Your task to perform on an android device: add a contact in the contacts app Image 0: 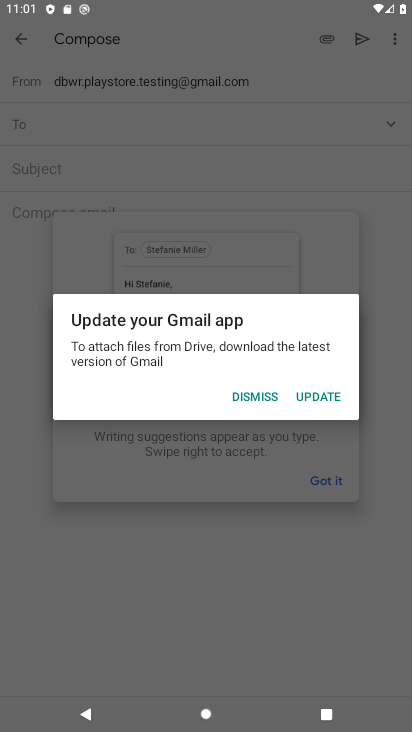
Step 0: press back button
Your task to perform on an android device: add a contact in the contacts app Image 1: 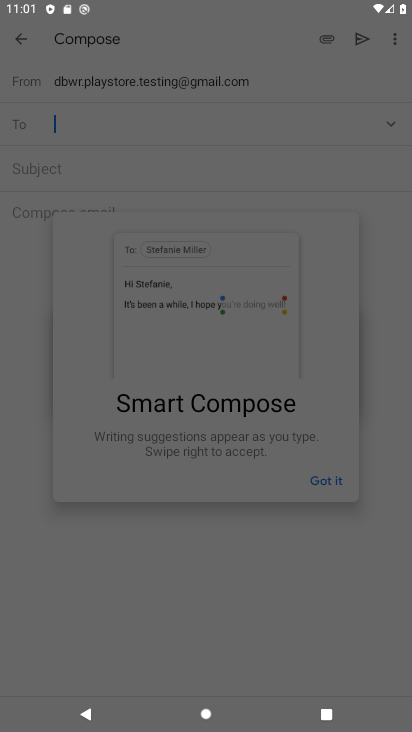
Step 1: press back button
Your task to perform on an android device: add a contact in the contacts app Image 2: 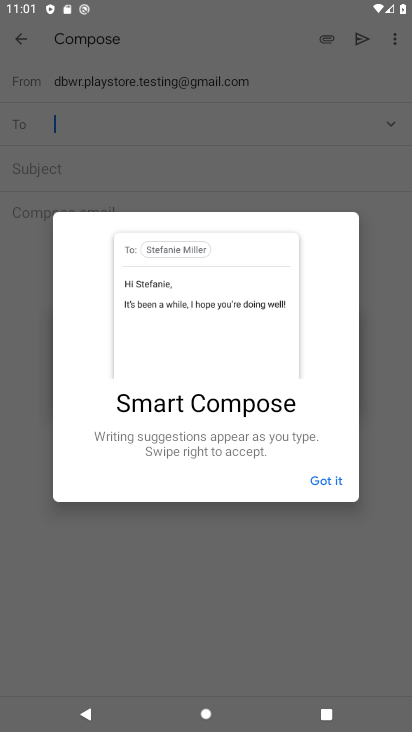
Step 2: press home button
Your task to perform on an android device: add a contact in the contacts app Image 3: 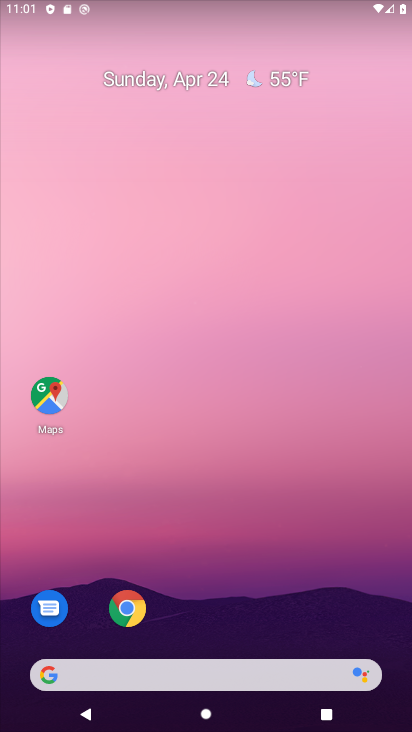
Step 3: drag from (185, 518) to (239, 108)
Your task to perform on an android device: add a contact in the contacts app Image 4: 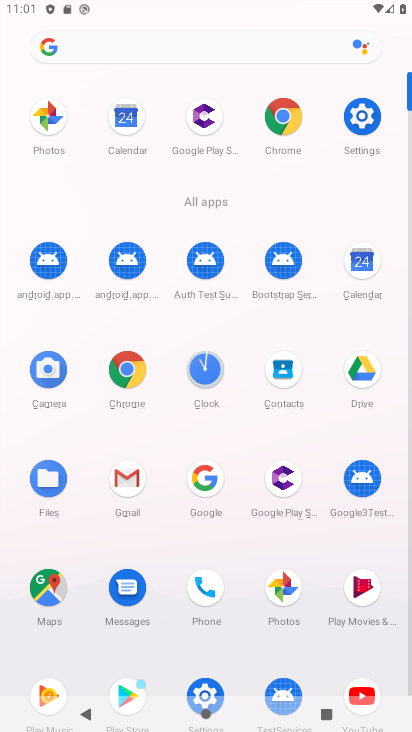
Step 4: click (281, 363)
Your task to perform on an android device: add a contact in the contacts app Image 5: 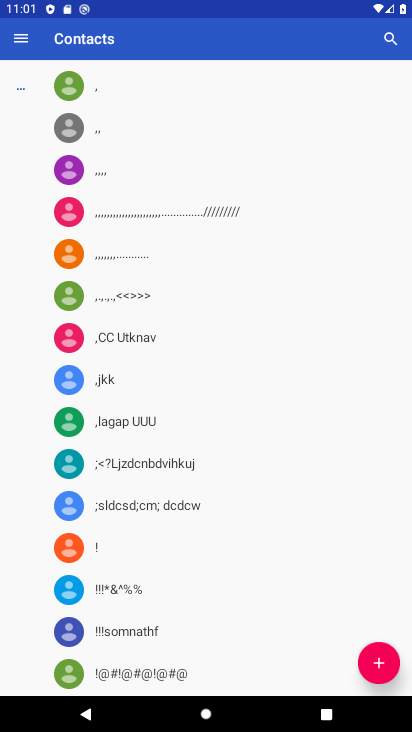
Step 5: click (376, 665)
Your task to perform on an android device: add a contact in the contacts app Image 6: 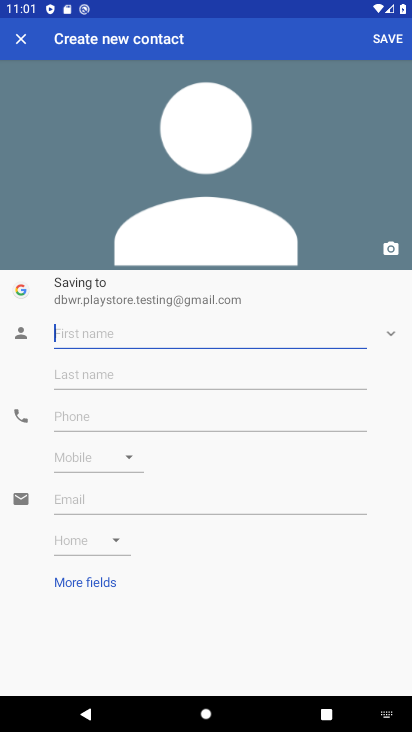
Step 6: click (89, 319)
Your task to perform on an android device: add a contact in the contacts app Image 7: 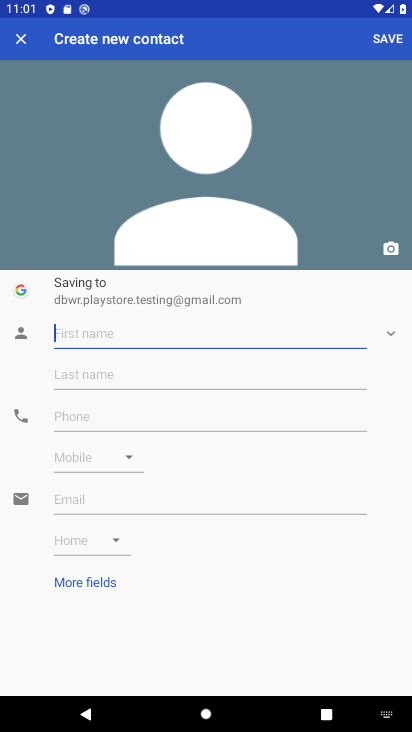
Step 7: type "hghg"
Your task to perform on an android device: add a contact in the contacts app Image 8: 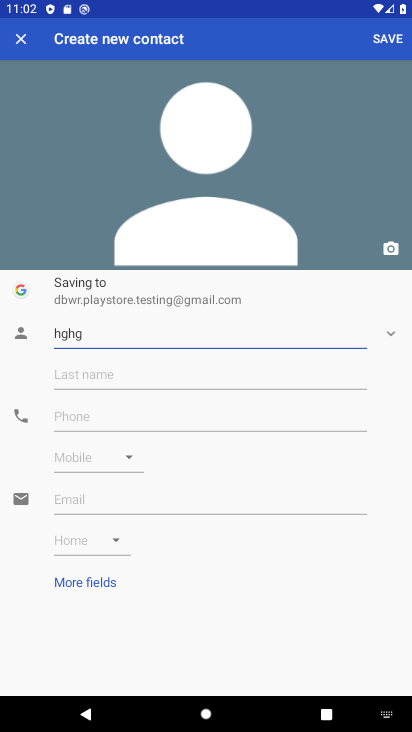
Step 8: click (94, 411)
Your task to perform on an android device: add a contact in the contacts app Image 9: 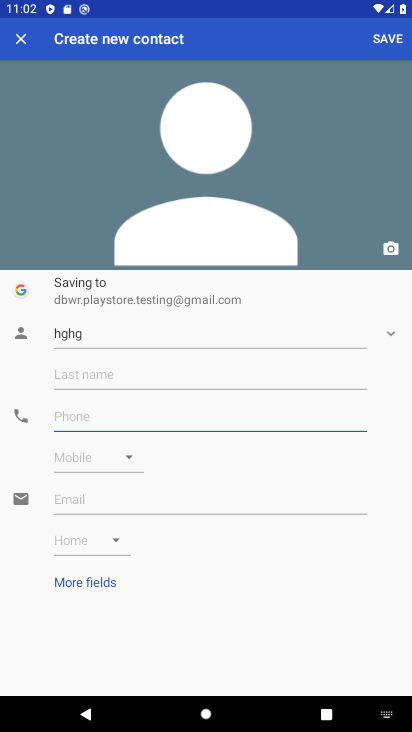
Step 9: type "6767"
Your task to perform on an android device: add a contact in the contacts app Image 10: 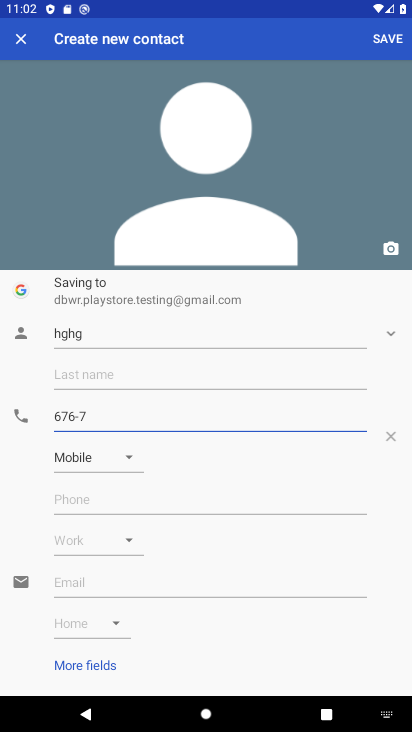
Step 10: click (381, 40)
Your task to perform on an android device: add a contact in the contacts app Image 11: 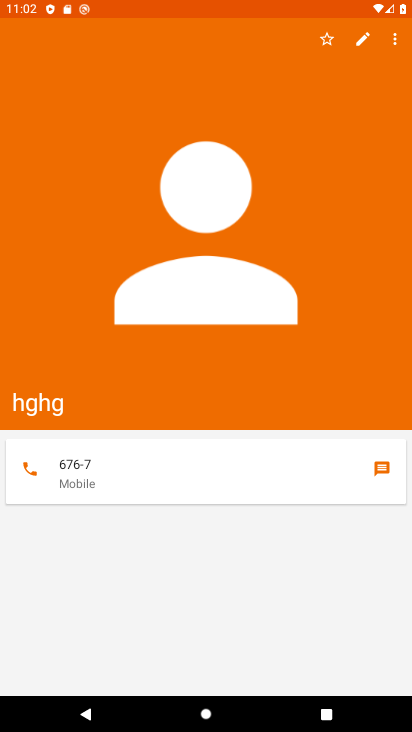
Step 11: task complete